Your task to perform on an android device: Go to wifi settings Image 0: 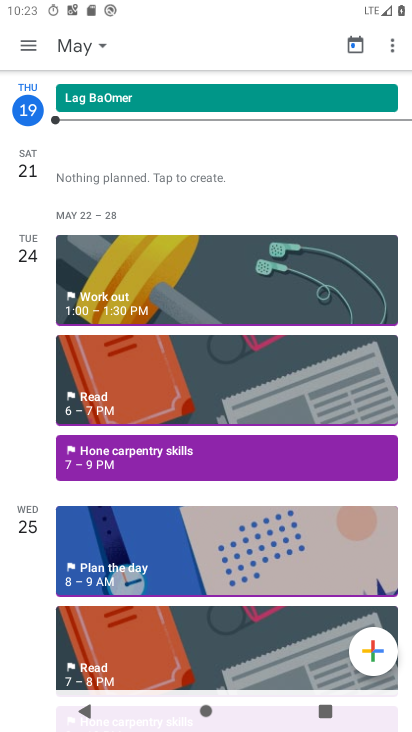
Step 0: press home button
Your task to perform on an android device: Go to wifi settings Image 1: 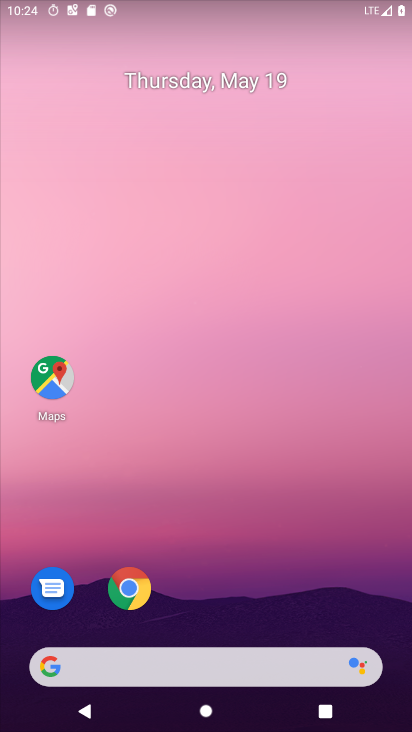
Step 1: drag from (153, 665) to (313, 152)
Your task to perform on an android device: Go to wifi settings Image 2: 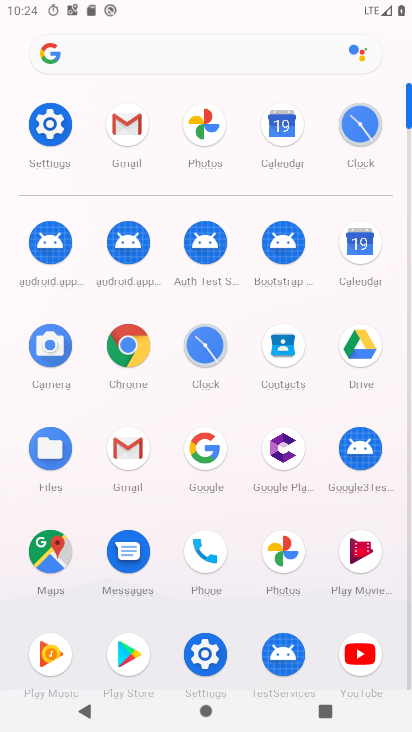
Step 2: click (42, 127)
Your task to perform on an android device: Go to wifi settings Image 3: 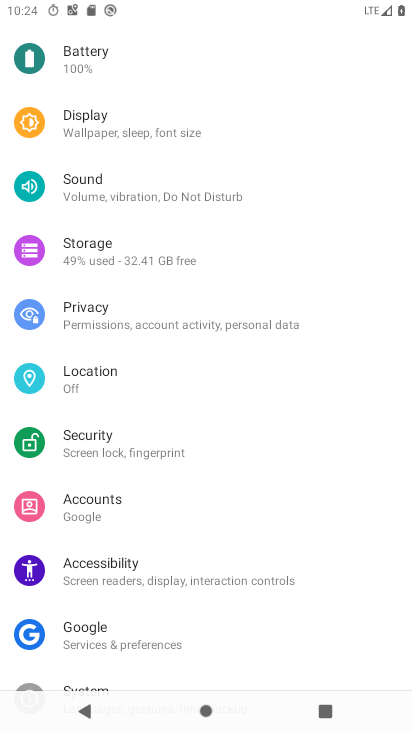
Step 3: drag from (326, 74) to (291, 553)
Your task to perform on an android device: Go to wifi settings Image 4: 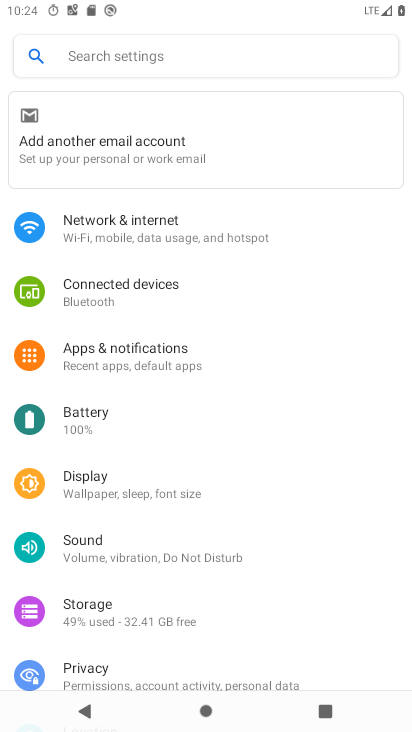
Step 4: click (201, 221)
Your task to perform on an android device: Go to wifi settings Image 5: 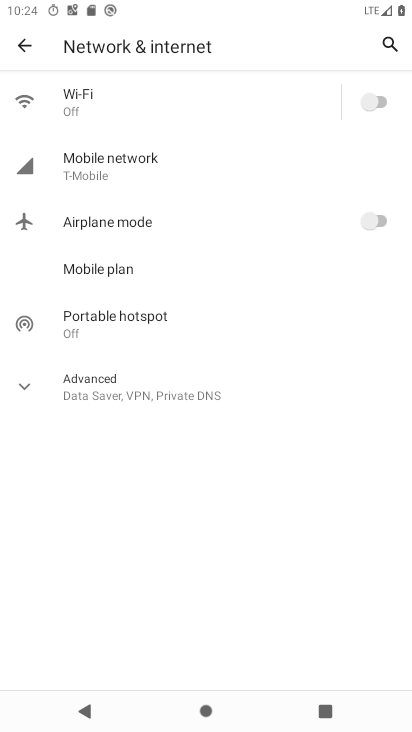
Step 5: click (94, 100)
Your task to perform on an android device: Go to wifi settings Image 6: 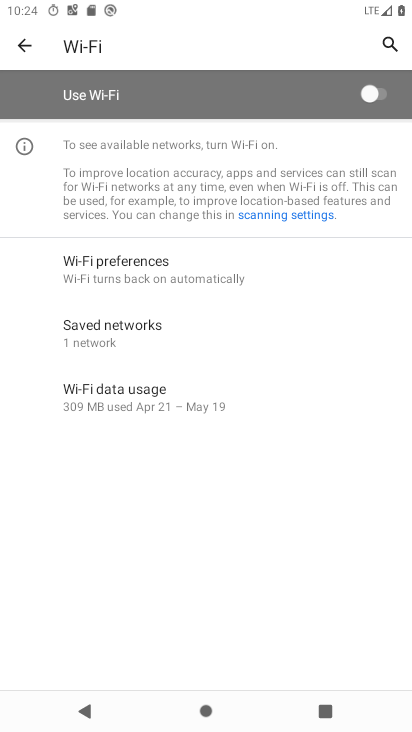
Step 6: task complete